Your task to perform on an android device: Open network settings Image 0: 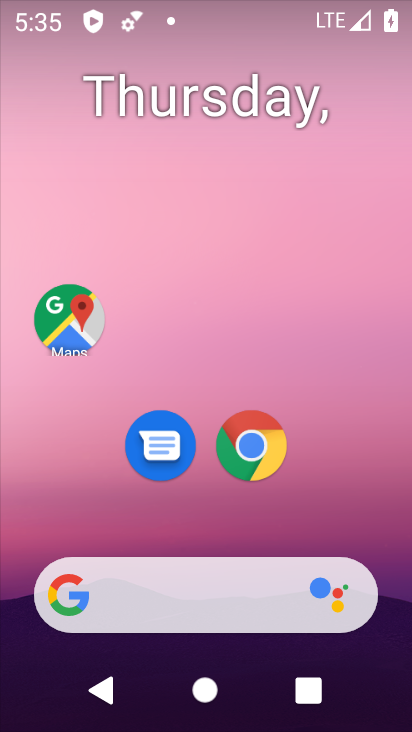
Step 0: drag from (339, 499) to (349, 111)
Your task to perform on an android device: Open network settings Image 1: 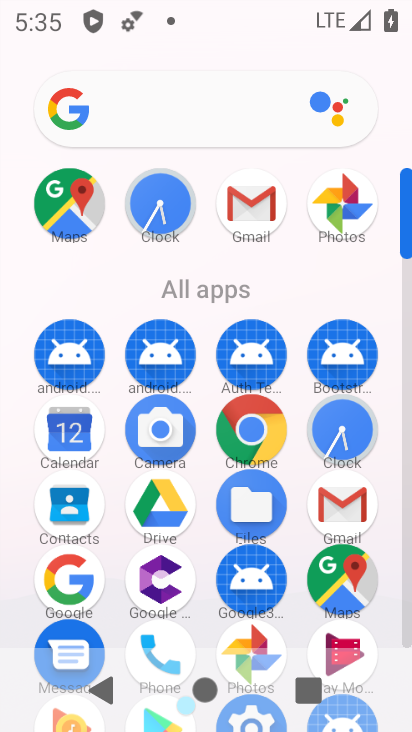
Step 1: drag from (296, 279) to (327, 92)
Your task to perform on an android device: Open network settings Image 2: 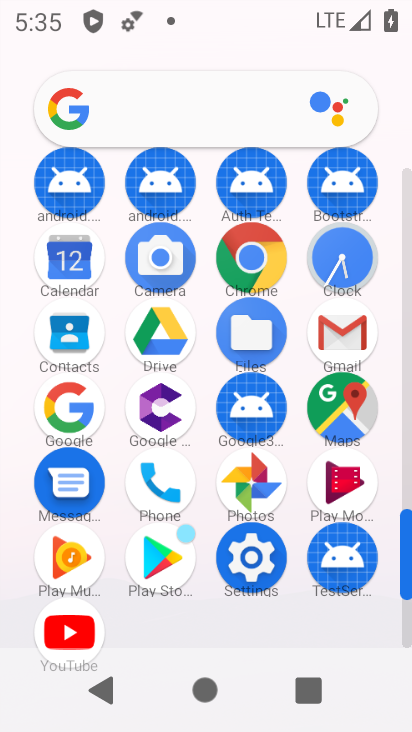
Step 2: click (238, 548)
Your task to perform on an android device: Open network settings Image 3: 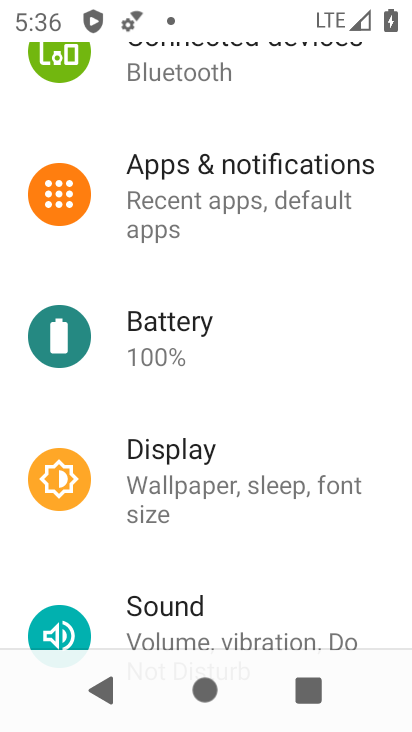
Step 3: drag from (306, 208) to (311, 489)
Your task to perform on an android device: Open network settings Image 4: 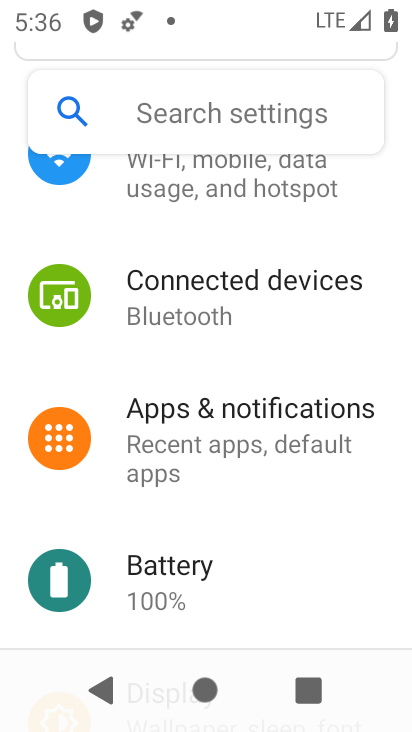
Step 4: drag from (278, 229) to (268, 571)
Your task to perform on an android device: Open network settings Image 5: 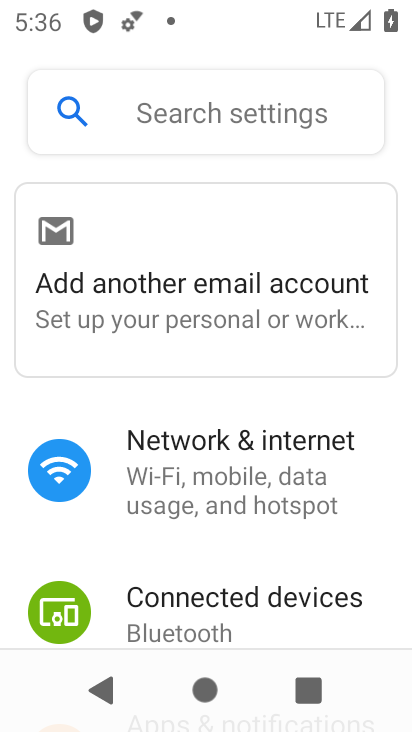
Step 5: click (236, 462)
Your task to perform on an android device: Open network settings Image 6: 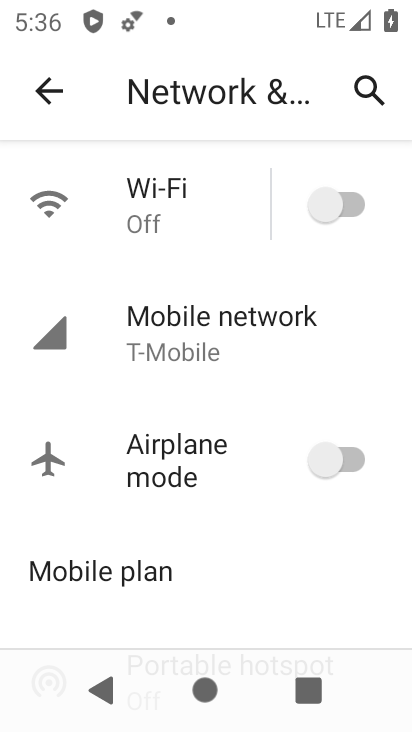
Step 6: task complete